Your task to perform on an android device: refresh tabs in the chrome app Image 0: 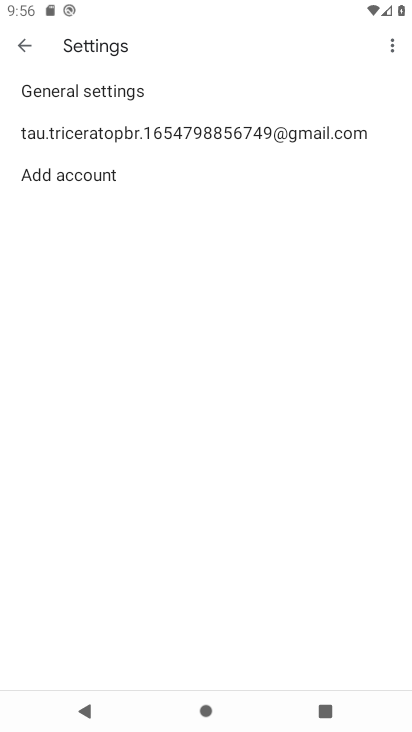
Step 0: press home button
Your task to perform on an android device: refresh tabs in the chrome app Image 1: 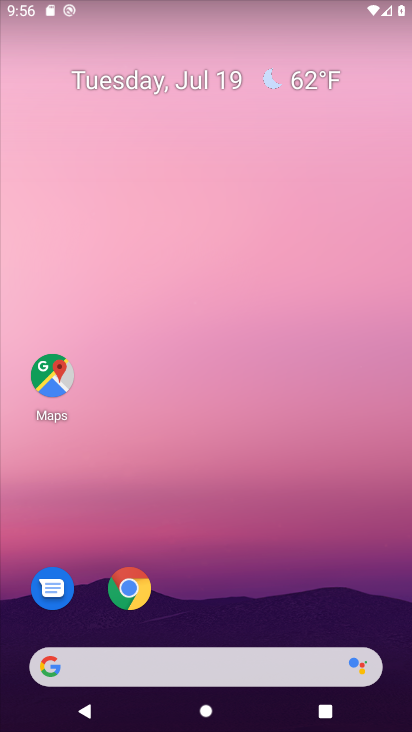
Step 1: click (127, 594)
Your task to perform on an android device: refresh tabs in the chrome app Image 2: 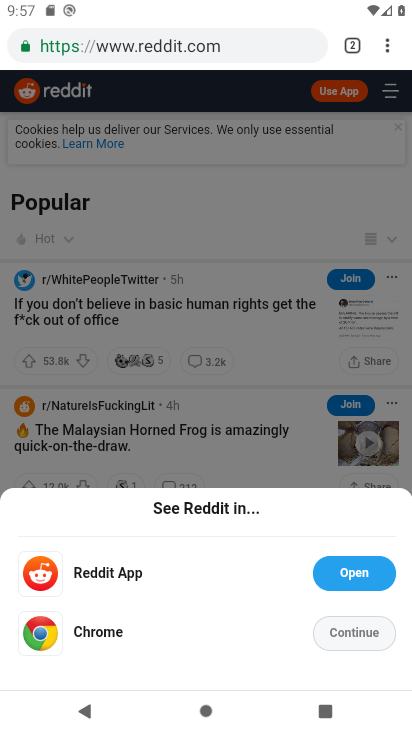
Step 2: click (386, 44)
Your task to perform on an android device: refresh tabs in the chrome app Image 3: 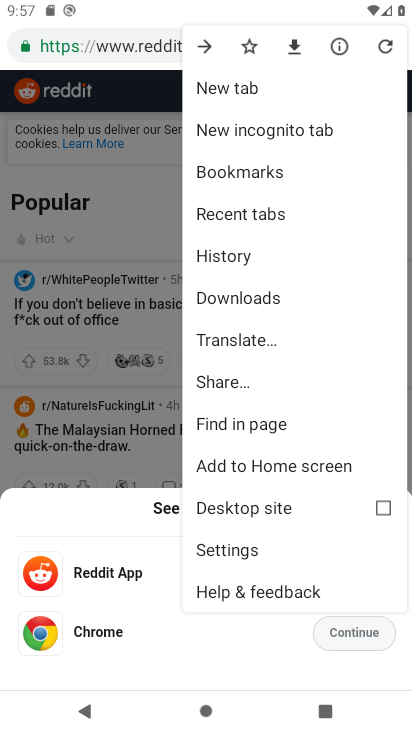
Step 3: click (387, 50)
Your task to perform on an android device: refresh tabs in the chrome app Image 4: 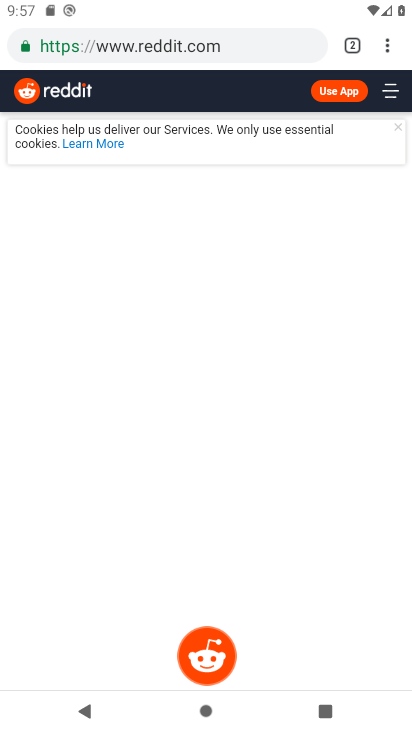
Step 4: task complete